Your task to perform on an android device: Is it going to rain tomorrow? Image 0: 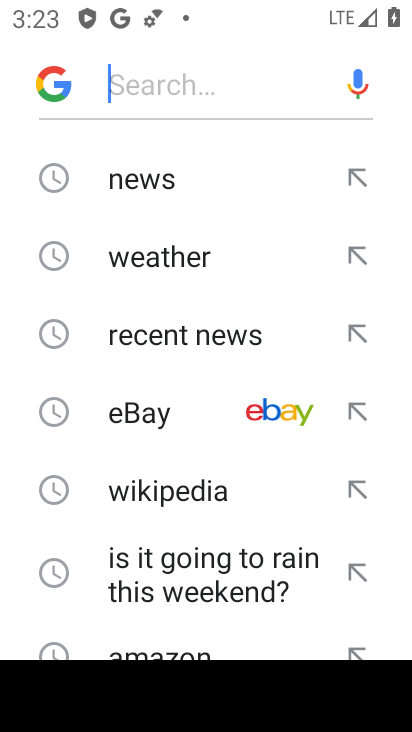
Step 0: press home button
Your task to perform on an android device: Is it going to rain tomorrow? Image 1: 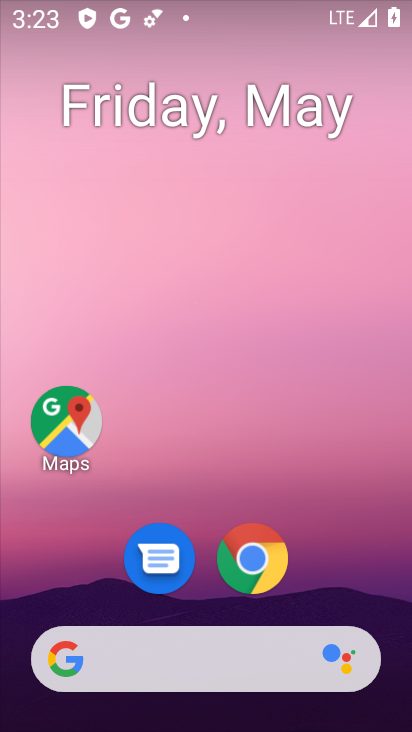
Step 1: click (71, 659)
Your task to perform on an android device: Is it going to rain tomorrow? Image 2: 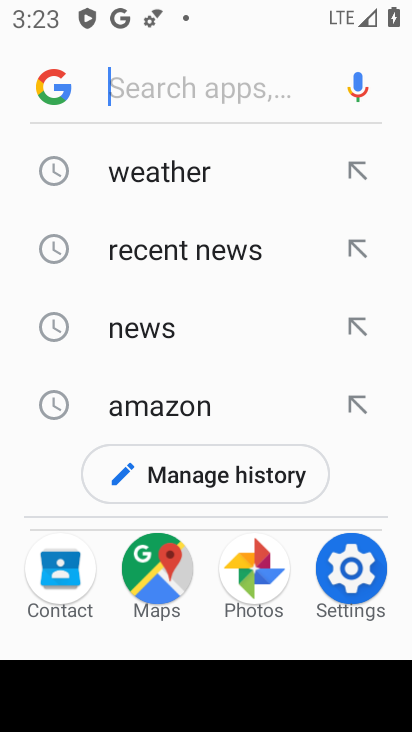
Step 2: click (181, 175)
Your task to perform on an android device: Is it going to rain tomorrow? Image 3: 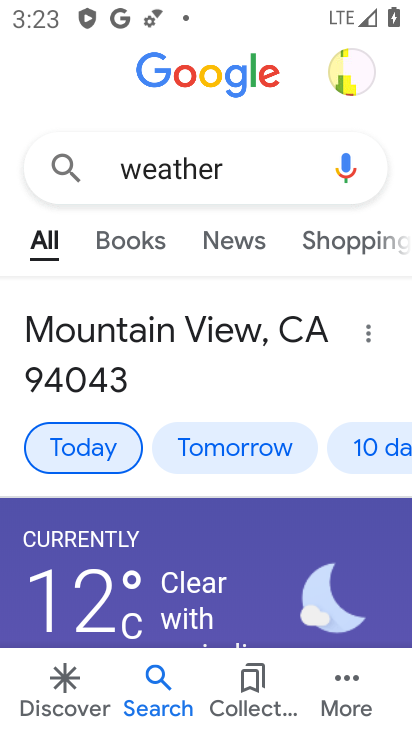
Step 3: click (230, 452)
Your task to perform on an android device: Is it going to rain tomorrow? Image 4: 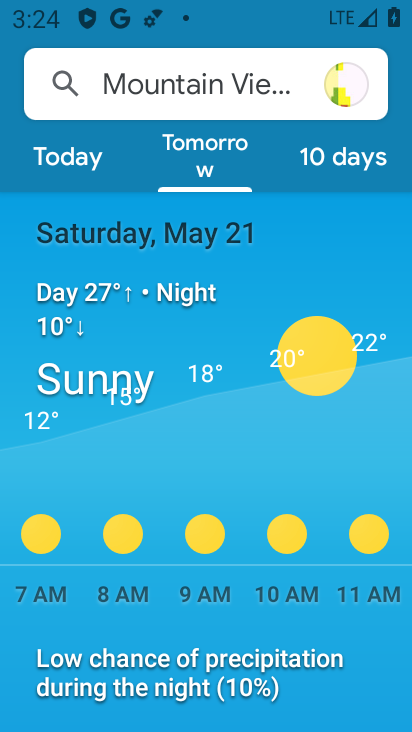
Step 4: task complete